Your task to perform on an android device: turn off picture-in-picture Image 0: 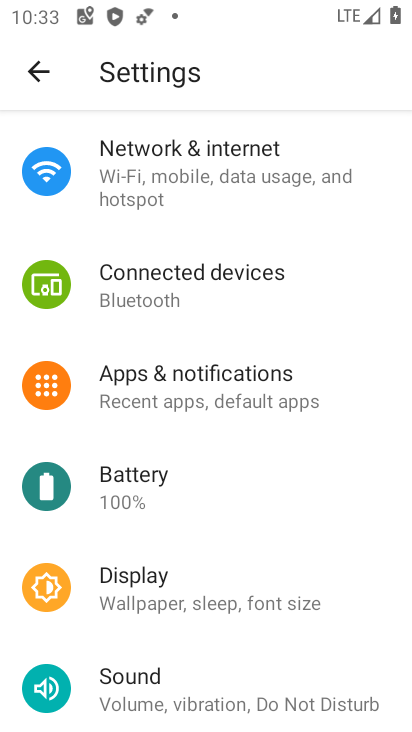
Step 0: click (203, 404)
Your task to perform on an android device: turn off picture-in-picture Image 1: 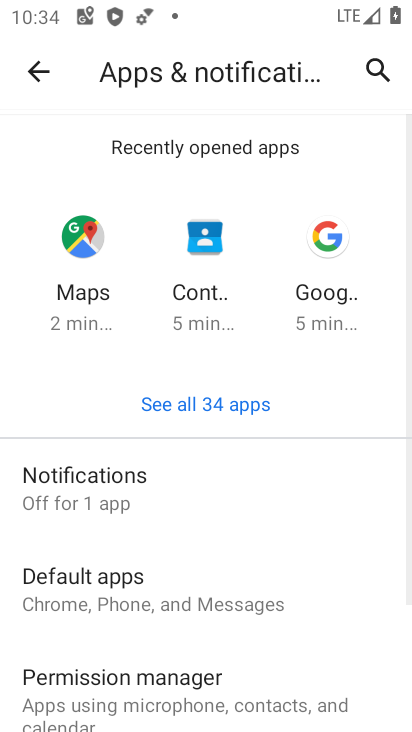
Step 1: click (140, 480)
Your task to perform on an android device: turn off picture-in-picture Image 2: 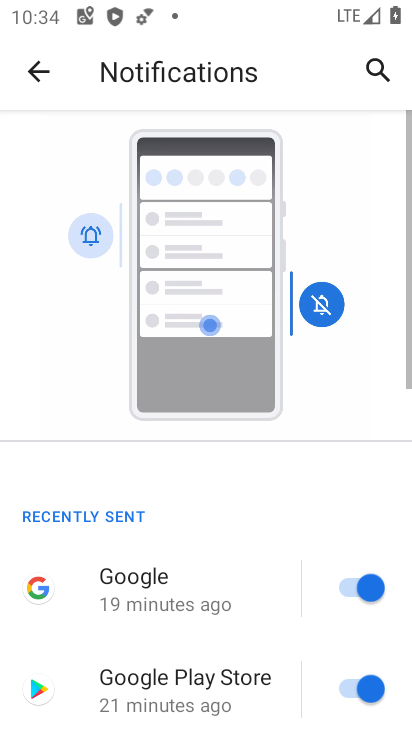
Step 2: drag from (185, 606) to (146, 81)
Your task to perform on an android device: turn off picture-in-picture Image 3: 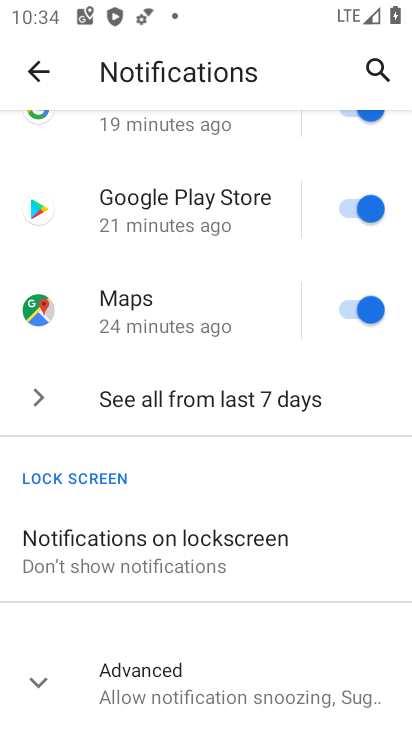
Step 3: click (172, 670)
Your task to perform on an android device: turn off picture-in-picture Image 4: 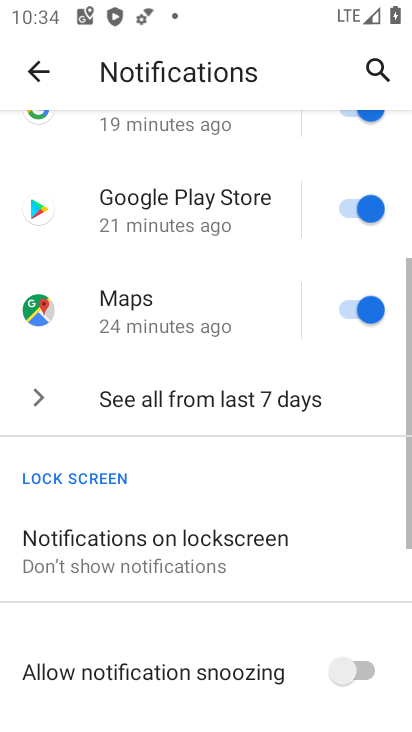
Step 4: drag from (172, 665) to (140, 93)
Your task to perform on an android device: turn off picture-in-picture Image 5: 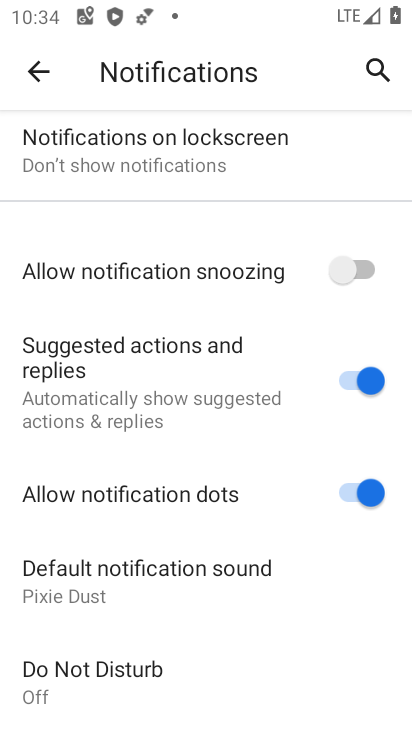
Step 5: drag from (189, 244) to (191, 723)
Your task to perform on an android device: turn off picture-in-picture Image 6: 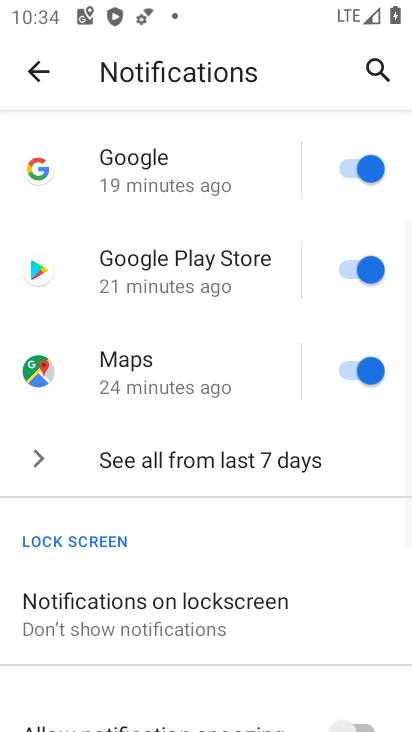
Step 6: drag from (183, 238) to (168, 725)
Your task to perform on an android device: turn off picture-in-picture Image 7: 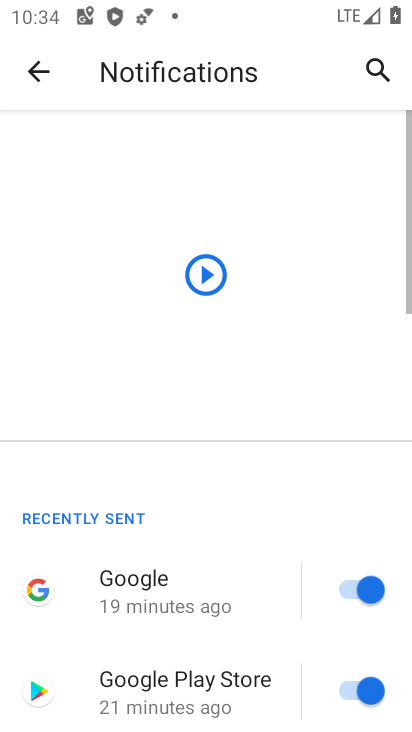
Step 7: click (51, 64)
Your task to perform on an android device: turn off picture-in-picture Image 8: 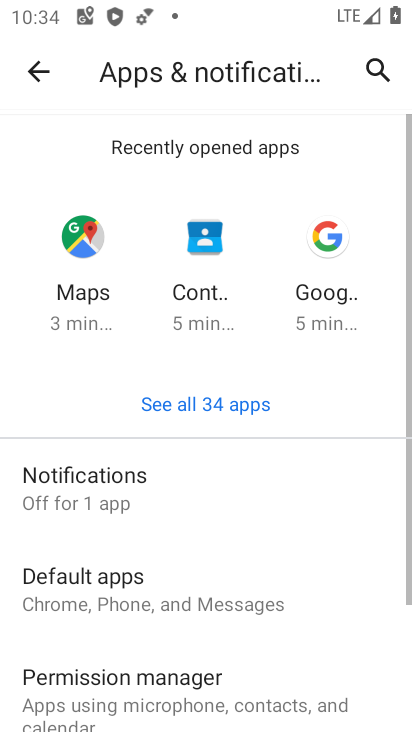
Step 8: drag from (199, 648) to (191, 144)
Your task to perform on an android device: turn off picture-in-picture Image 9: 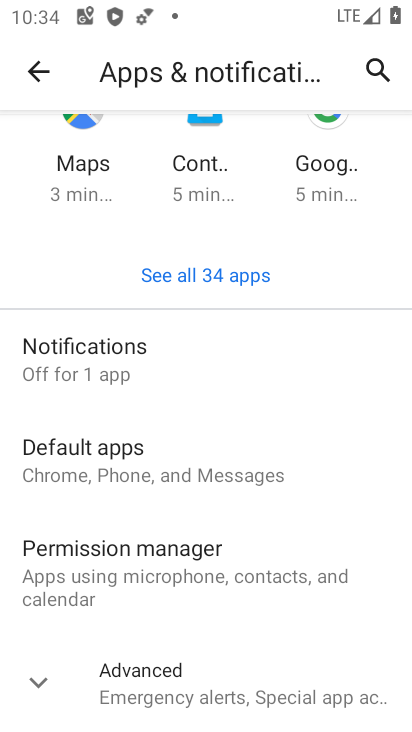
Step 9: click (211, 692)
Your task to perform on an android device: turn off picture-in-picture Image 10: 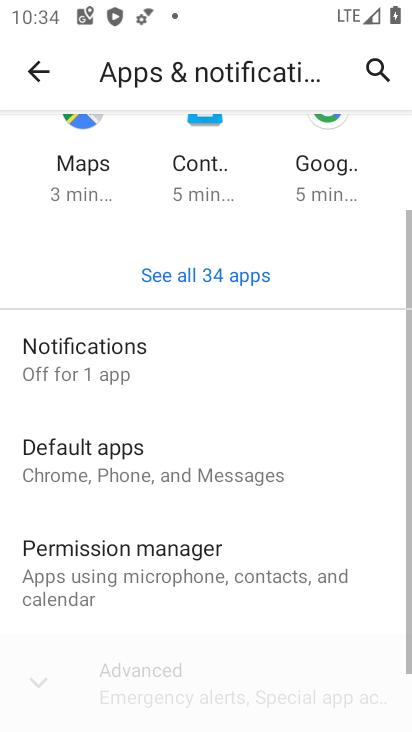
Step 10: drag from (208, 687) to (182, 161)
Your task to perform on an android device: turn off picture-in-picture Image 11: 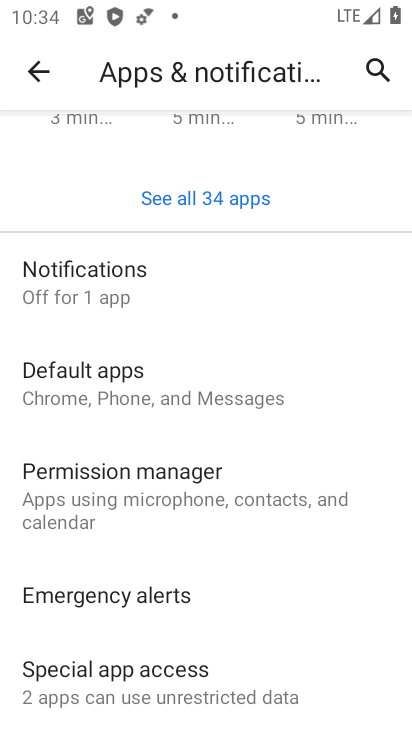
Step 11: click (149, 693)
Your task to perform on an android device: turn off picture-in-picture Image 12: 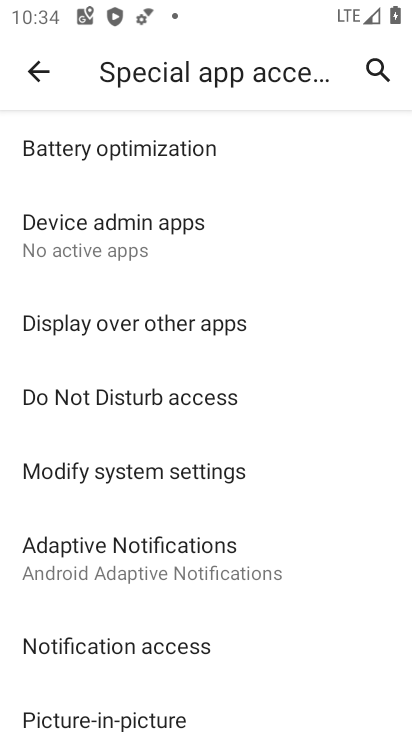
Step 12: drag from (254, 616) to (261, 352)
Your task to perform on an android device: turn off picture-in-picture Image 13: 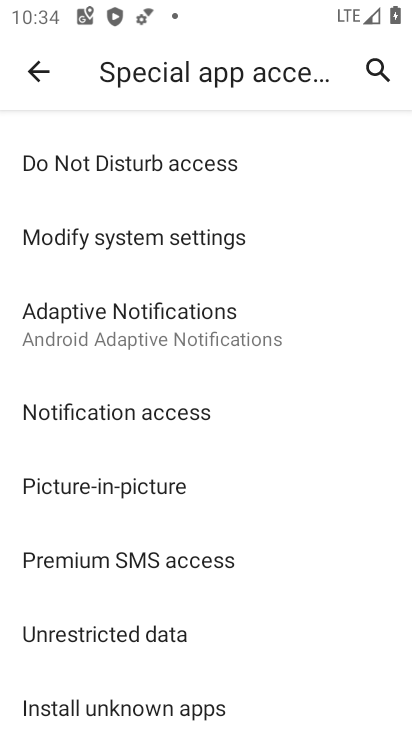
Step 13: click (119, 478)
Your task to perform on an android device: turn off picture-in-picture Image 14: 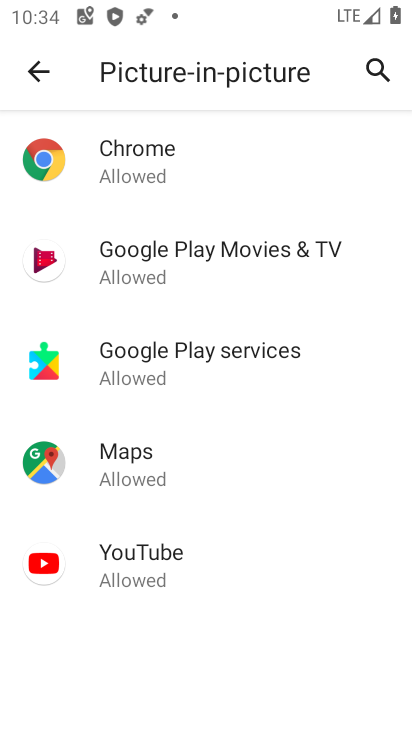
Step 14: task complete